Your task to perform on an android device: Open the calendar app, open the side menu, and click the "Day" option Image 0: 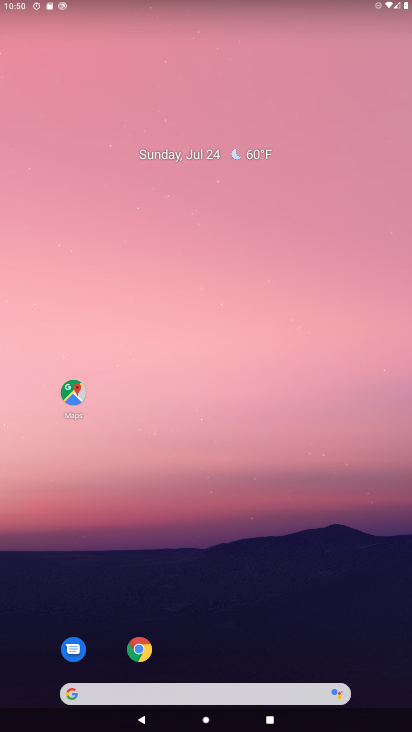
Step 0: drag from (368, 656) to (151, 0)
Your task to perform on an android device: Open the calendar app, open the side menu, and click the "Day" option Image 1: 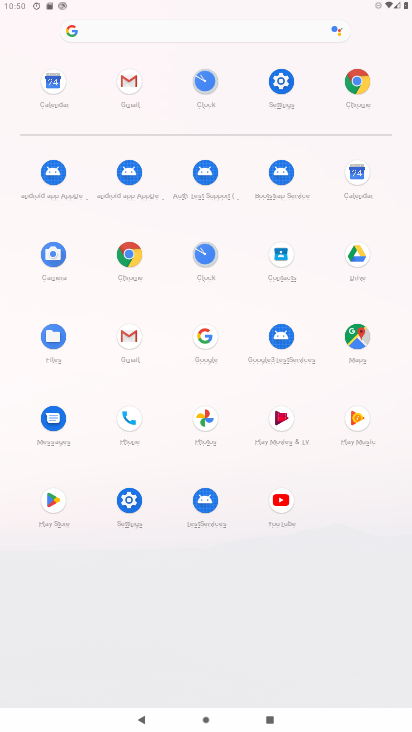
Step 1: click (364, 176)
Your task to perform on an android device: Open the calendar app, open the side menu, and click the "Day" option Image 2: 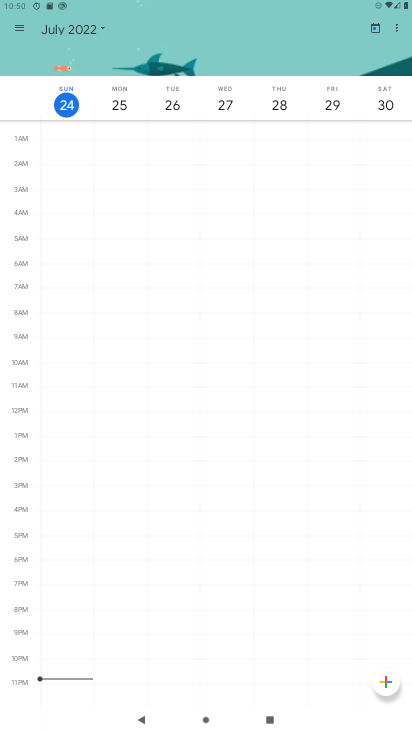
Step 2: click (18, 28)
Your task to perform on an android device: Open the calendar app, open the side menu, and click the "Day" option Image 3: 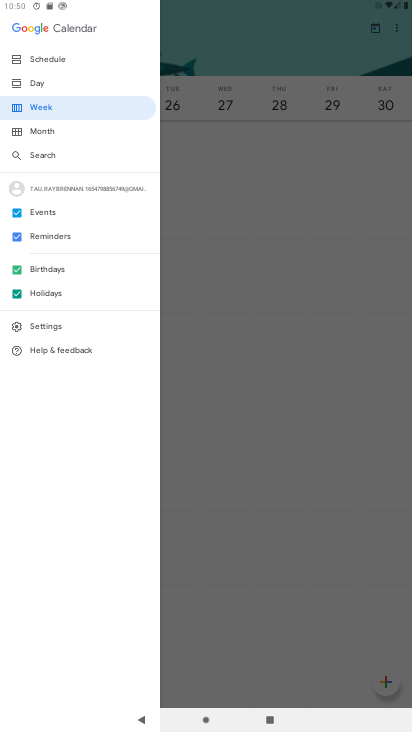
Step 3: click (45, 90)
Your task to perform on an android device: Open the calendar app, open the side menu, and click the "Day" option Image 4: 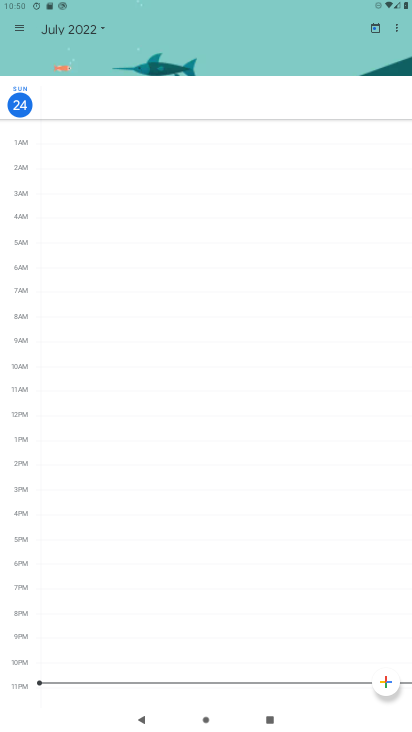
Step 4: task complete